Your task to perform on an android device: Go to sound settings Image 0: 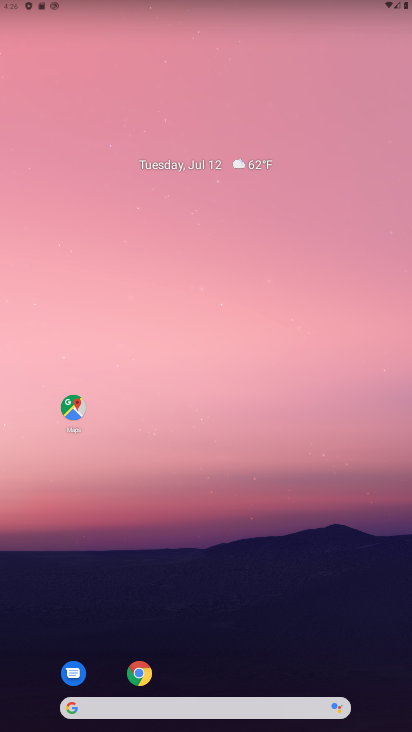
Step 0: drag from (217, 687) to (215, 228)
Your task to perform on an android device: Go to sound settings Image 1: 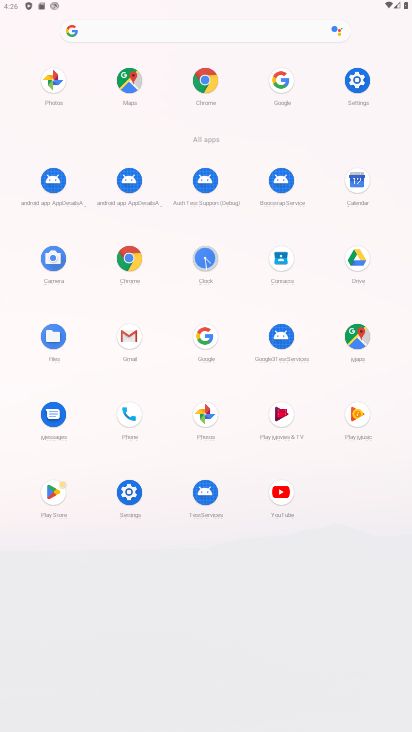
Step 1: click (362, 79)
Your task to perform on an android device: Go to sound settings Image 2: 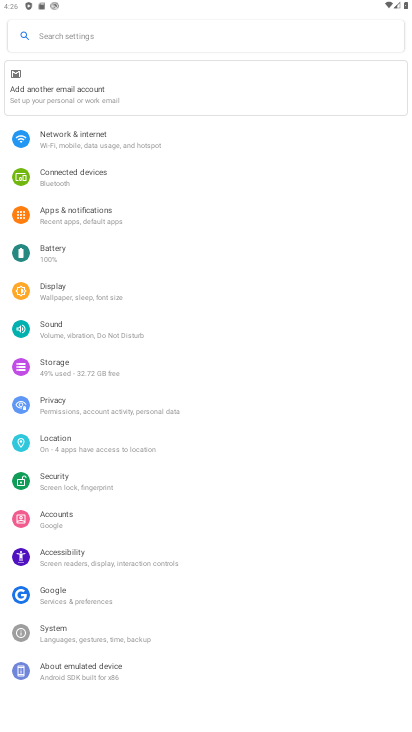
Step 2: click (56, 332)
Your task to perform on an android device: Go to sound settings Image 3: 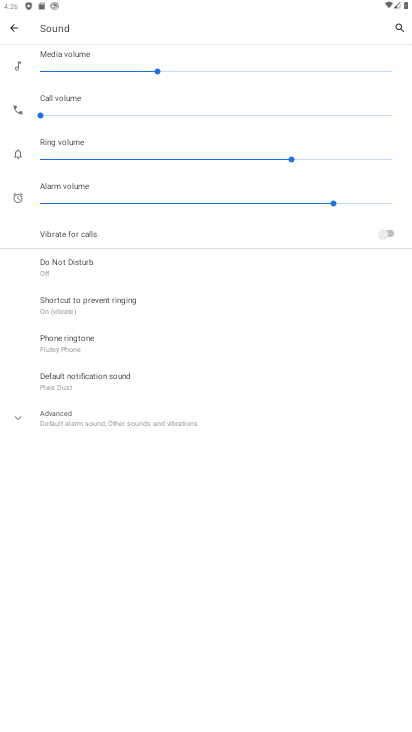
Step 3: task complete